Your task to perform on an android device: open a bookmark in the chrome app Image 0: 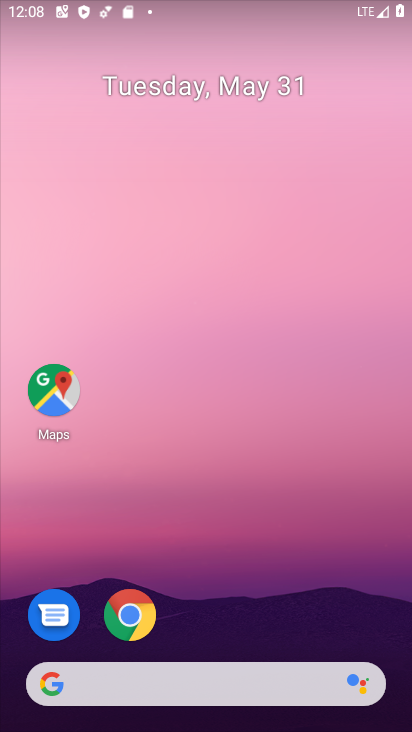
Step 0: click (128, 611)
Your task to perform on an android device: open a bookmark in the chrome app Image 1: 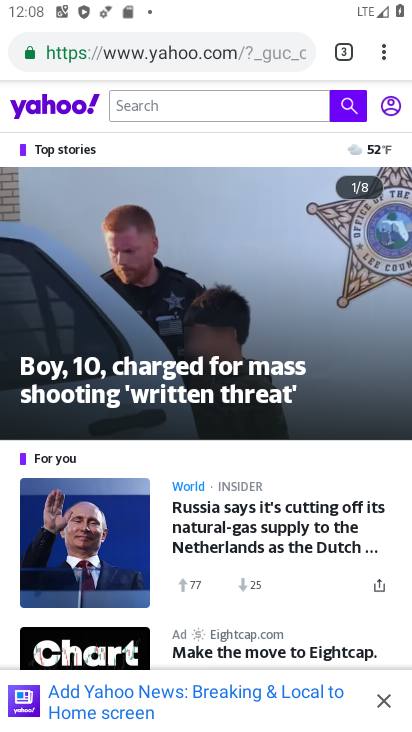
Step 1: click (380, 52)
Your task to perform on an android device: open a bookmark in the chrome app Image 2: 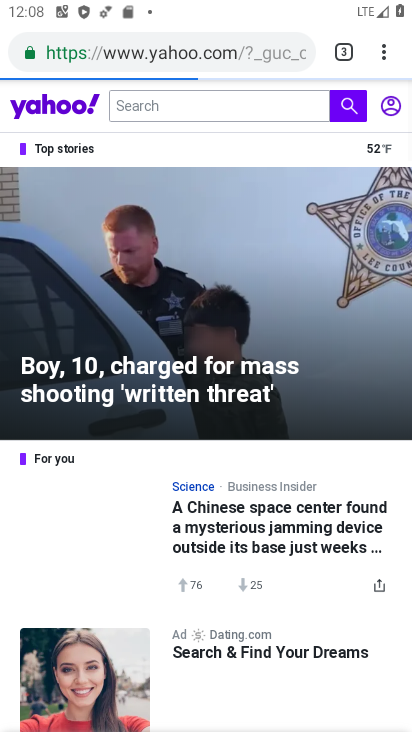
Step 2: click (390, 52)
Your task to perform on an android device: open a bookmark in the chrome app Image 3: 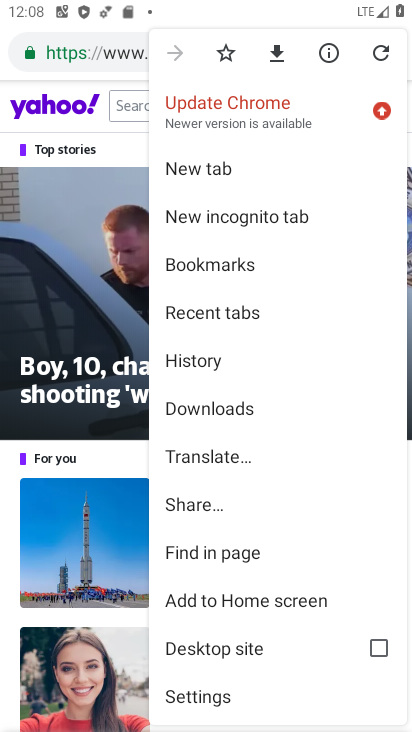
Step 3: click (212, 270)
Your task to perform on an android device: open a bookmark in the chrome app Image 4: 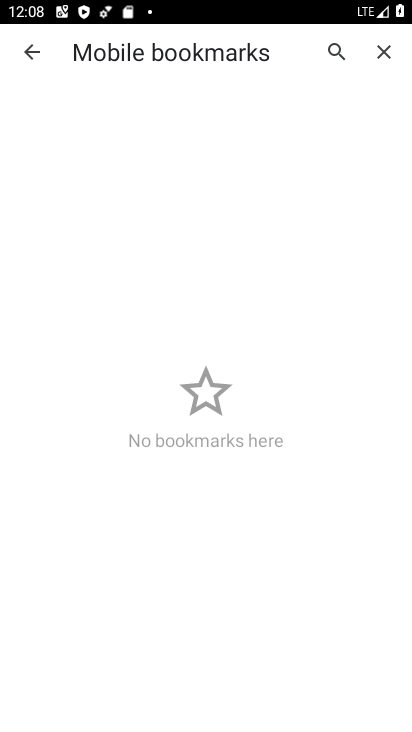
Step 4: task complete